Your task to perform on an android device: What's on my calendar tomorrow? Image 0: 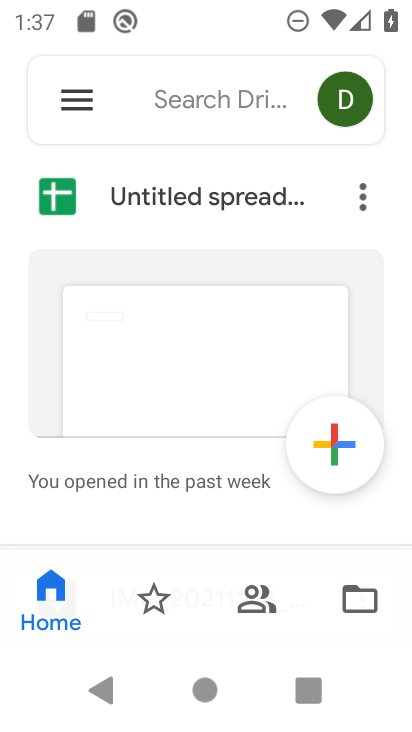
Step 0: click (370, 527)
Your task to perform on an android device: What's on my calendar tomorrow? Image 1: 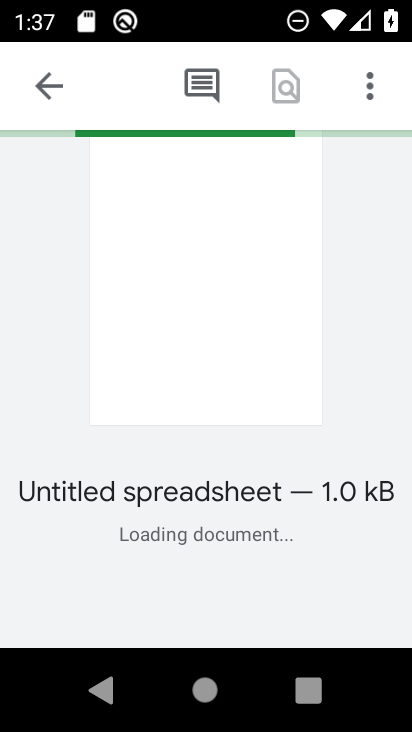
Step 1: press home button
Your task to perform on an android device: What's on my calendar tomorrow? Image 2: 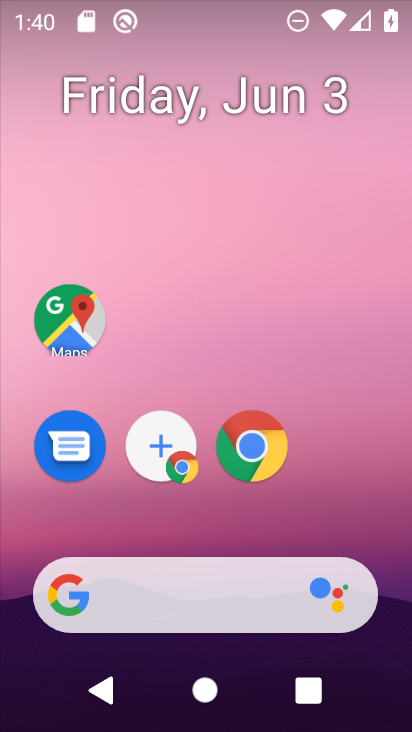
Step 2: drag from (270, 685) to (314, 31)
Your task to perform on an android device: What's on my calendar tomorrow? Image 3: 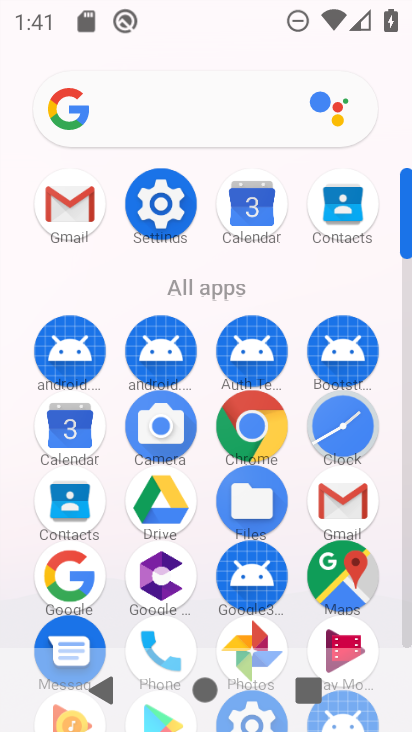
Step 3: click (62, 429)
Your task to perform on an android device: What's on my calendar tomorrow? Image 4: 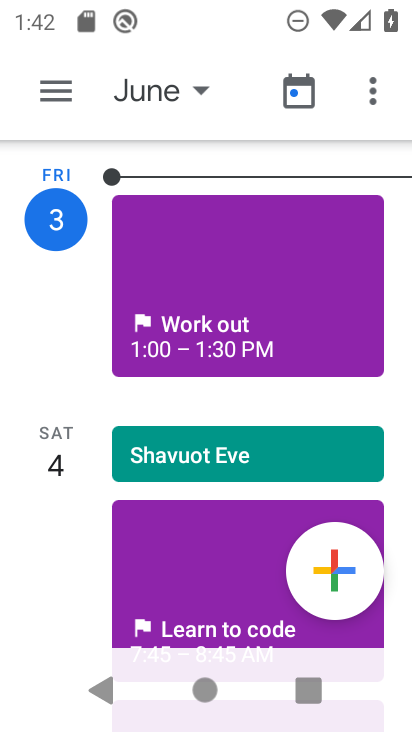
Step 4: task complete